Your task to perform on an android device: turn vacation reply on in the gmail app Image 0: 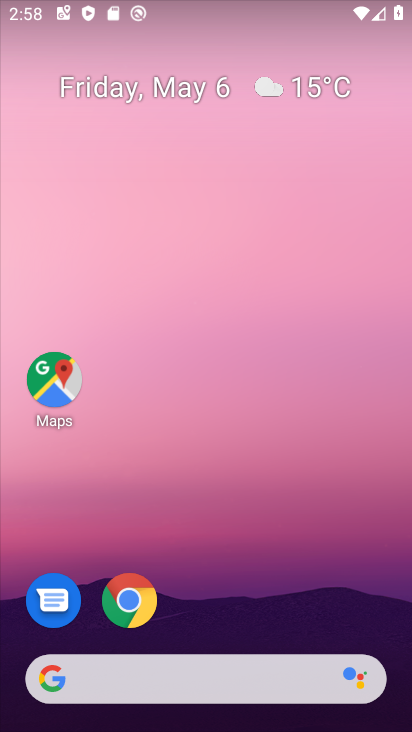
Step 0: drag from (268, 581) to (246, 34)
Your task to perform on an android device: turn vacation reply on in the gmail app Image 1: 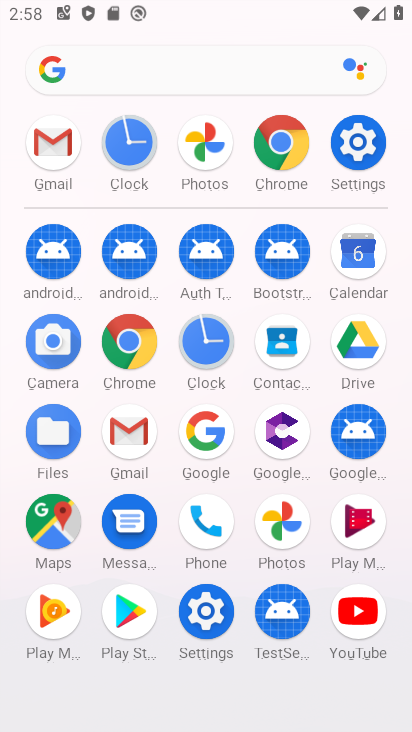
Step 1: drag from (6, 547) to (19, 186)
Your task to perform on an android device: turn vacation reply on in the gmail app Image 2: 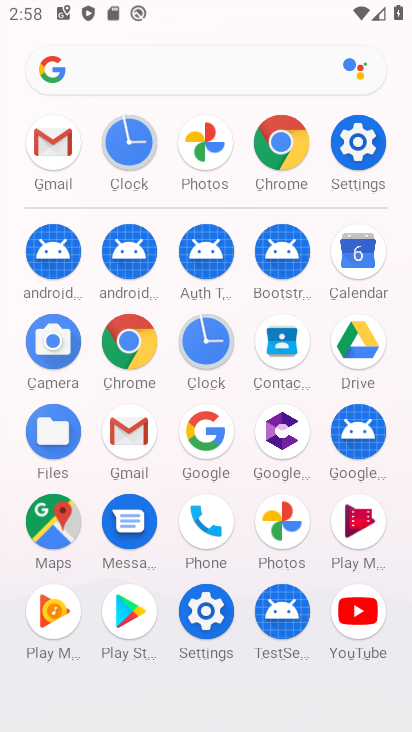
Step 2: click (125, 428)
Your task to perform on an android device: turn vacation reply on in the gmail app Image 3: 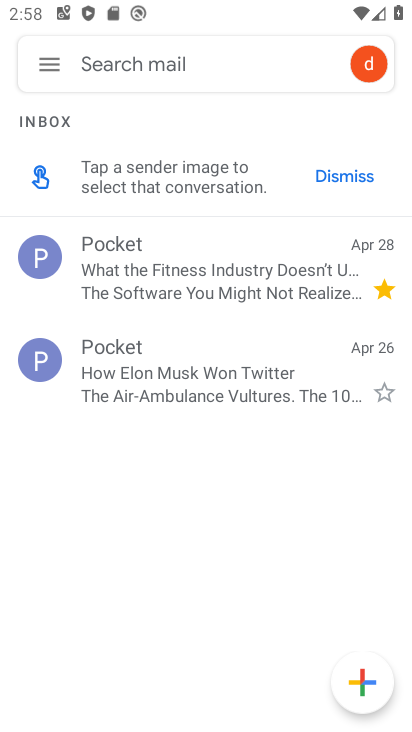
Step 3: click (54, 66)
Your task to perform on an android device: turn vacation reply on in the gmail app Image 4: 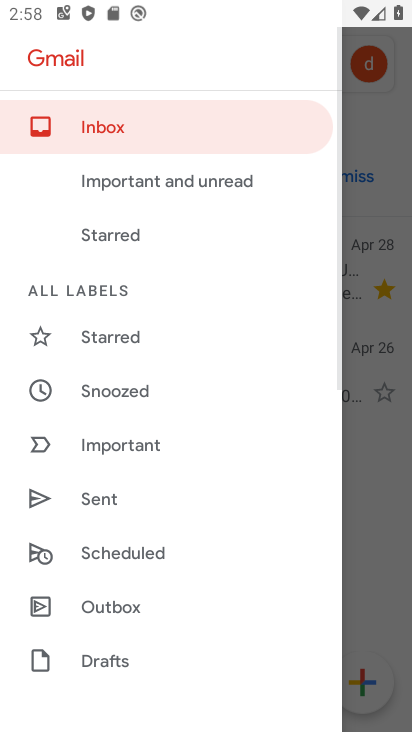
Step 4: drag from (229, 553) to (230, 94)
Your task to perform on an android device: turn vacation reply on in the gmail app Image 5: 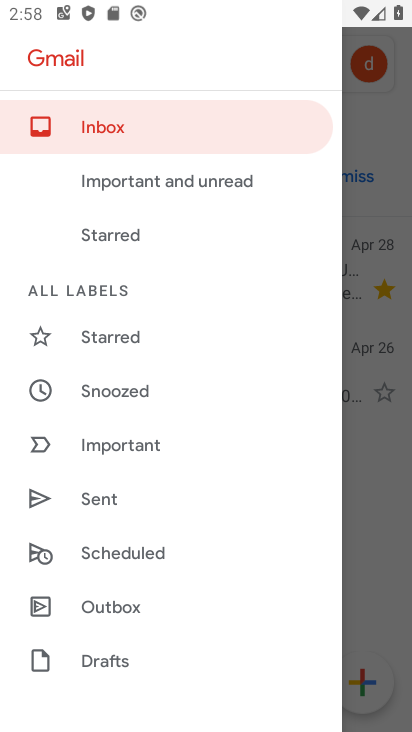
Step 5: drag from (189, 606) to (217, 170)
Your task to perform on an android device: turn vacation reply on in the gmail app Image 6: 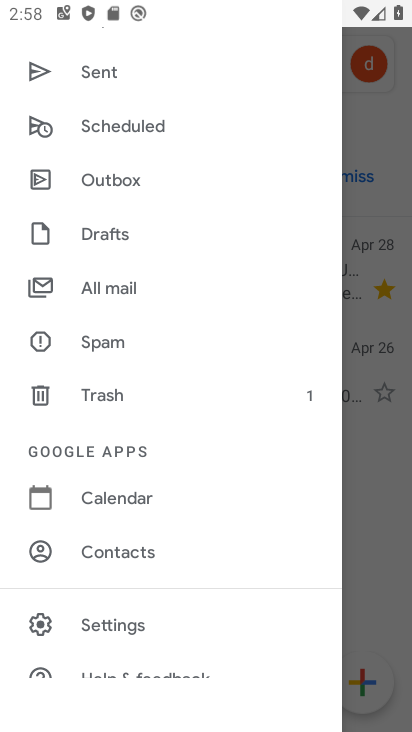
Step 6: click (123, 625)
Your task to perform on an android device: turn vacation reply on in the gmail app Image 7: 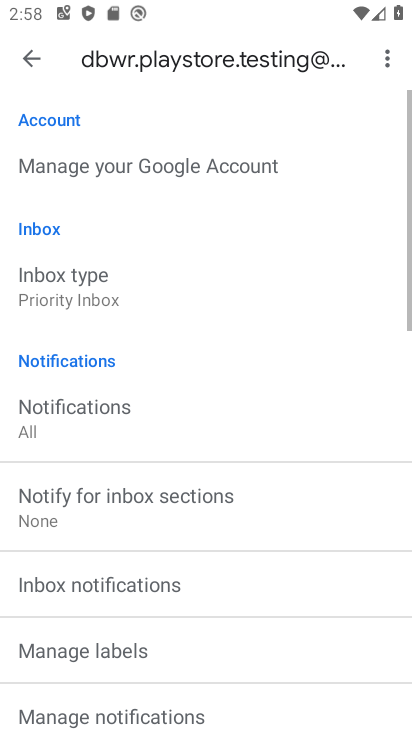
Step 7: drag from (281, 579) to (286, 119)
Your task to perform on an android device: turn vacation reply on in the gmail app Image 8: 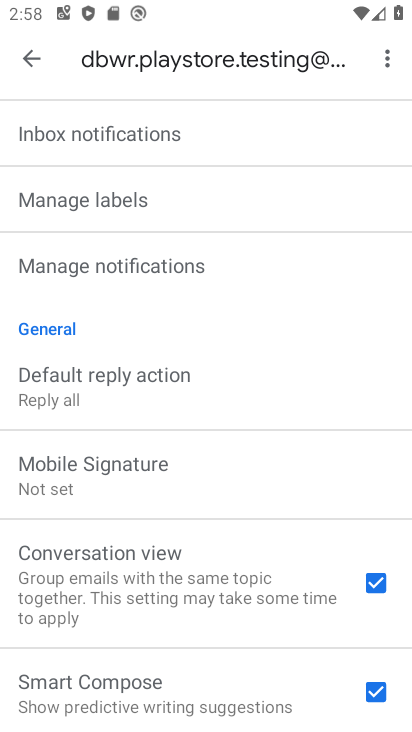
Step 8: drag from (242, 529) to (254, 132)
Your task to perform on an android device: turn vacation reply on in the gmail app Image 9: 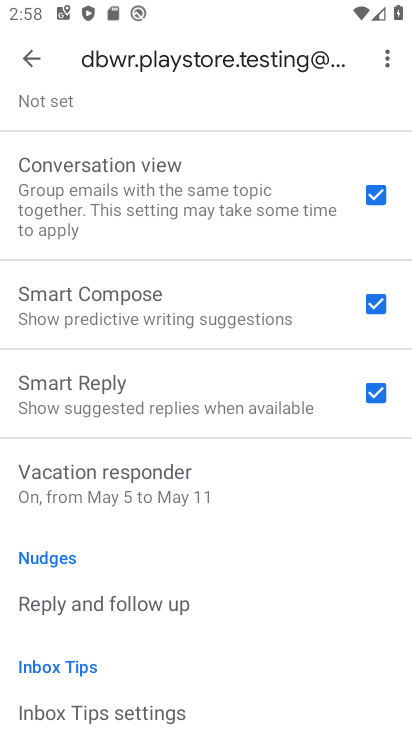
Step 9: drag from (175, 584) to (187, 181)
Your task to perform on an android device: turn vacation reply on in the gmail app Image 10: 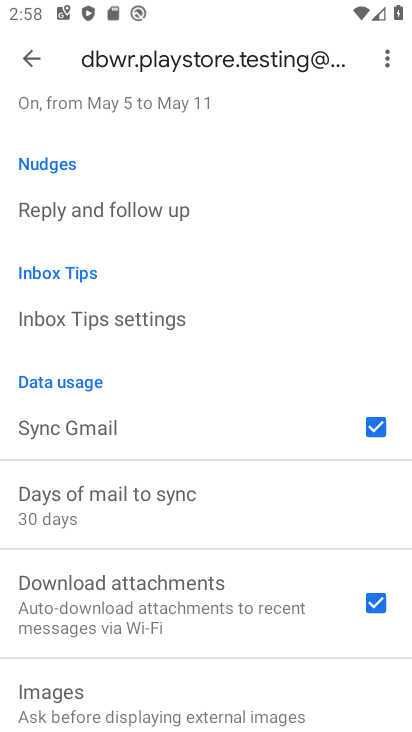
Step 10: drag from (209, 171) to (214, 488)
Your task to perform on an android device: turn vacation reply on in the gmail app Image 11: 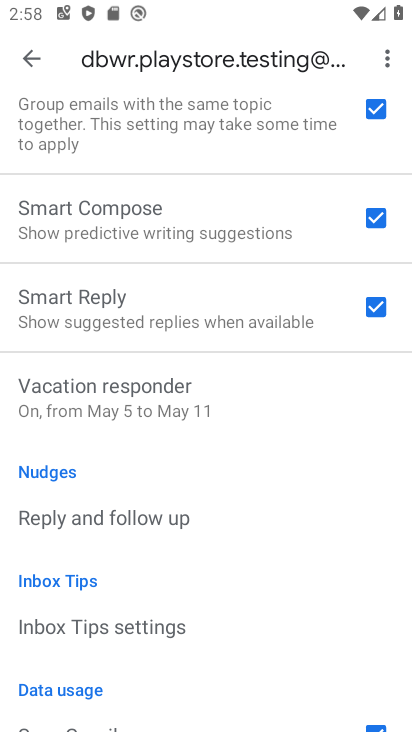
Step 11: click (163, 394)
Your task to perform on an android device: turn vacation reply on in the gmail app Image 12: 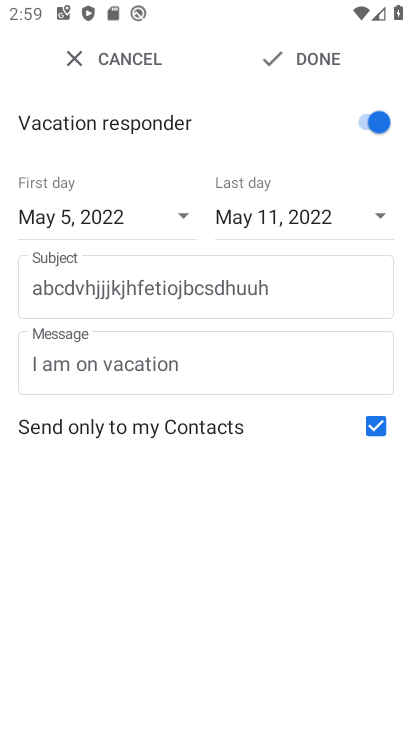
Step 12: click (294, 56)
Your task to perform on an android device: turn vacation reply on in the gmail app Image 13: 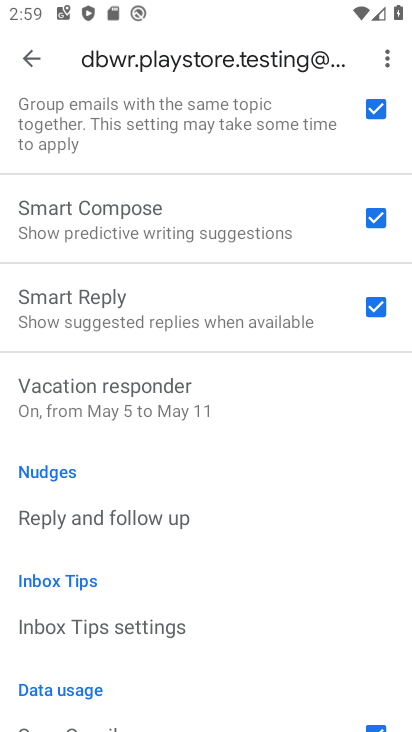
Step 13: task complete